Your task to perform on an android device: Toggle the flashlight Image 0: 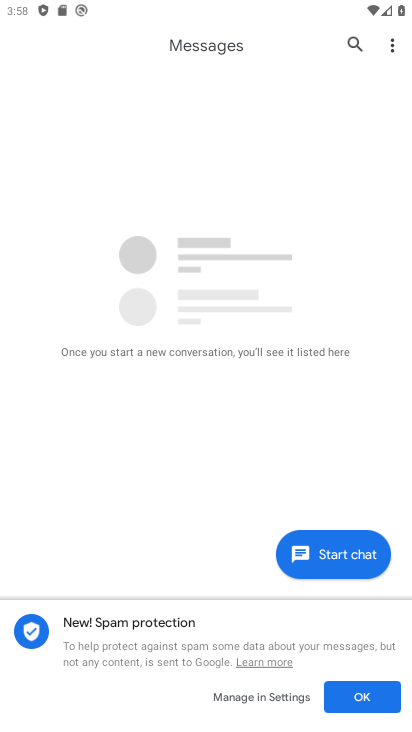
Step 0: press home button
Your task to perform on an android device: Toggle the flashlight Image 1: 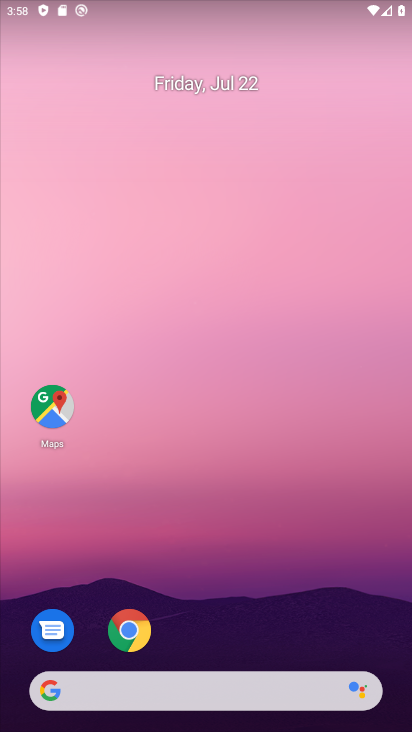
Step 1: drag from (237, 637) to (257, 11)
Your task to perform on an android device: Toggle the flashlight Image 2: 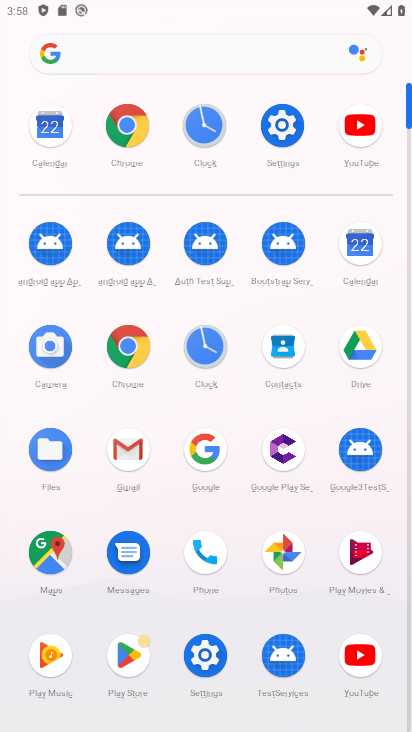
Step 2: click (201, 652)
Your task to perform on an android device: Toggle the flashlight Image 3: 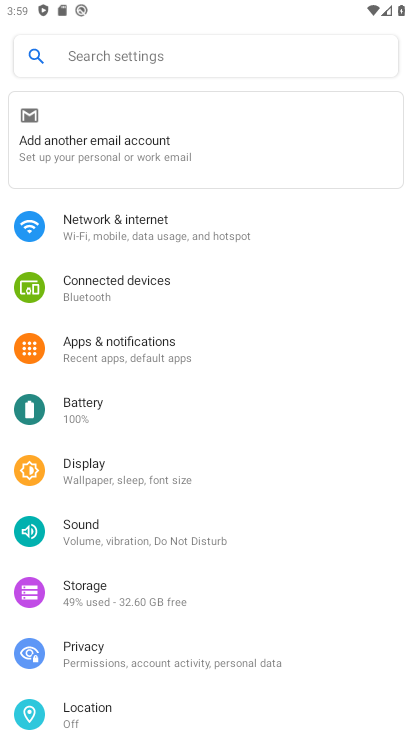
Step 3: click (135, 51)
Your task to perform on an android device: Toggle the flashlight Image 4: 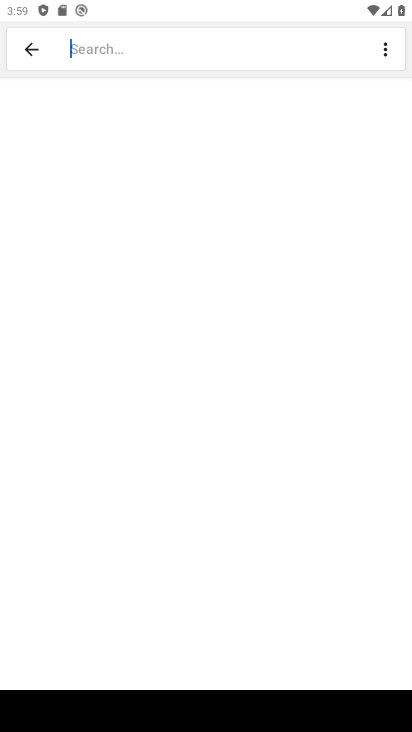
Step 4: type "flashlight"
Your task to perform on an android device: Toggle the flashlight Image 5: 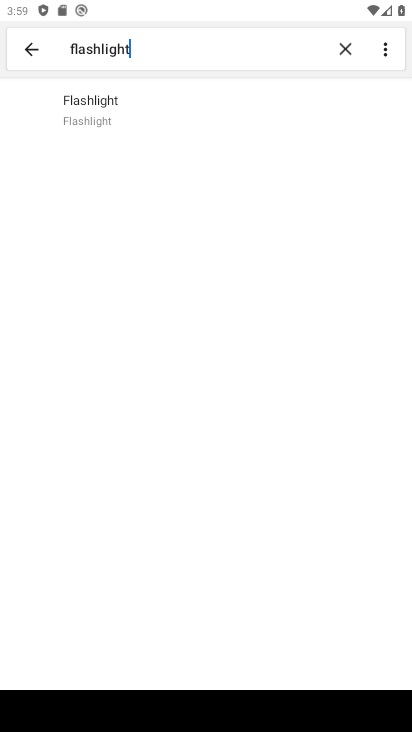
Step 5: click (82, 113)
Your task to perform on an android device: Toggle the flashlight Image 6: 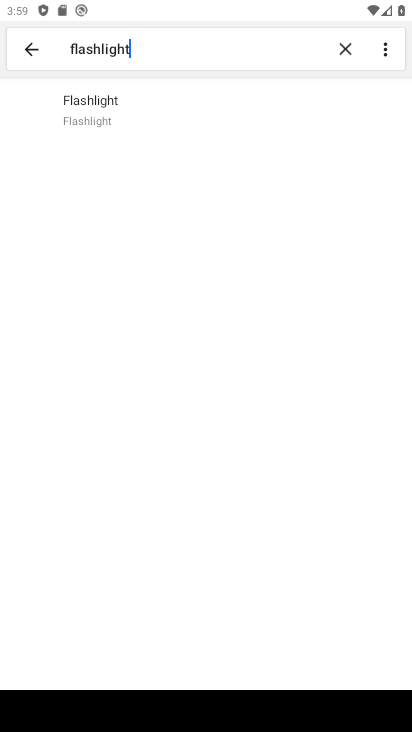
Step 6: click (82, 113)
Your task to perform on an android device: Toggle the flashlight Image 7: 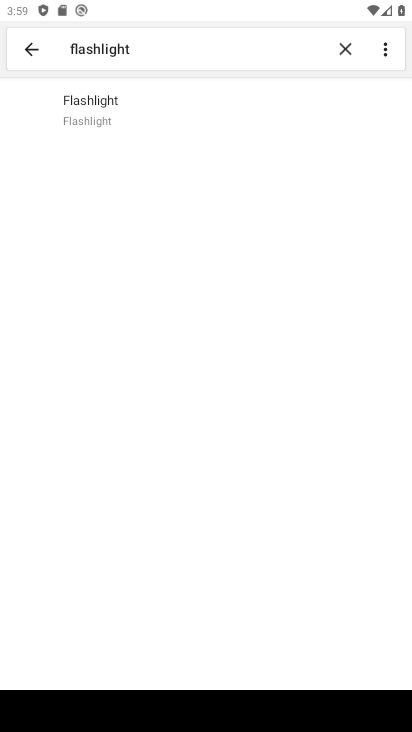
Step 7: task complete